Your task to perform on an android device: Is it going to rain this weekend? Image 0: 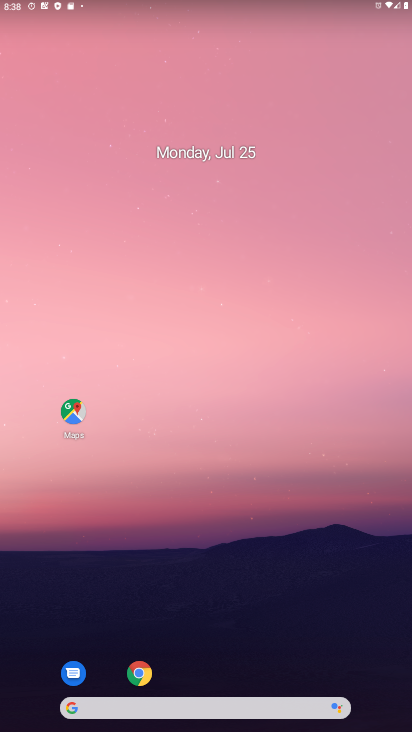
Step 0: drag from (295, 634) to (142, 38)
Your task to perform on an android device: Is it going to rain this weekend? Image 1: 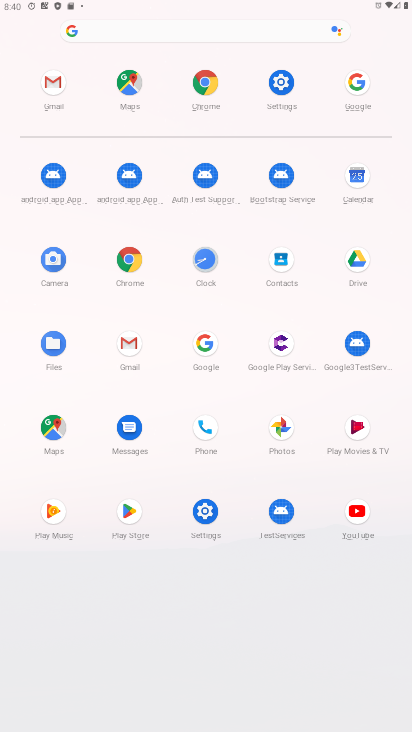
Step 1: click (209, 353)
Your task to perform on an android device: Is it going to rain this weekend? Image 2: 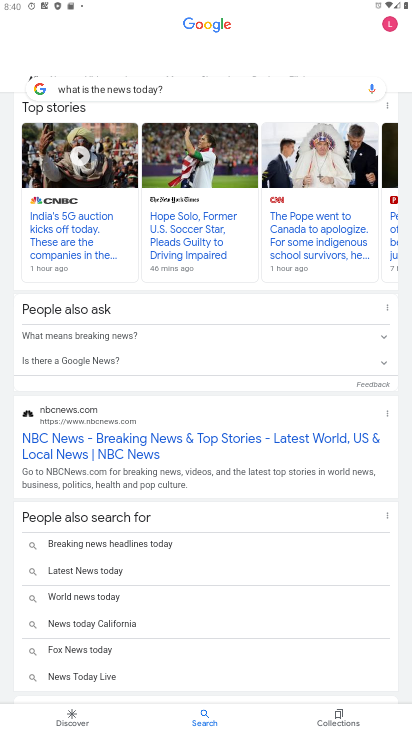
Step 2: press back button
Your task to perform on an android device: Is it going to rain this weekend? Image 3: 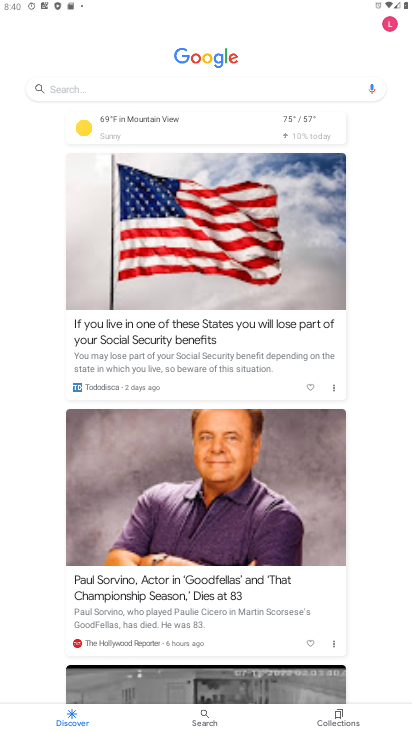
Step 3: click (96, 87)
Your task to perform on an android device: Is it going to rain this weekend? Image 4: 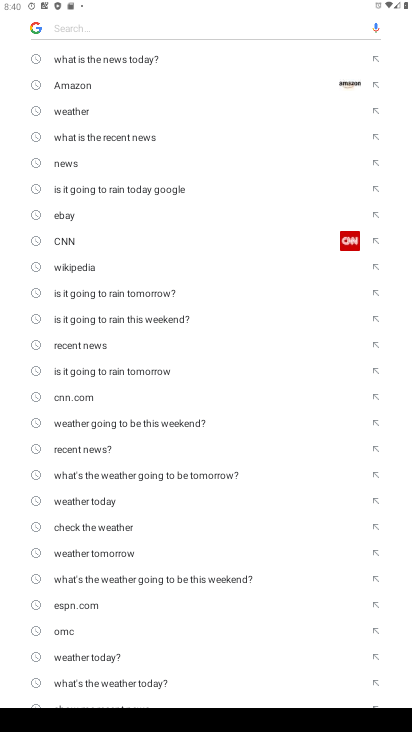
Step 4: type "Is it going to rain this weekend?"
Your task to perform on an android device: Is it going to rain this weekend? Image 5: 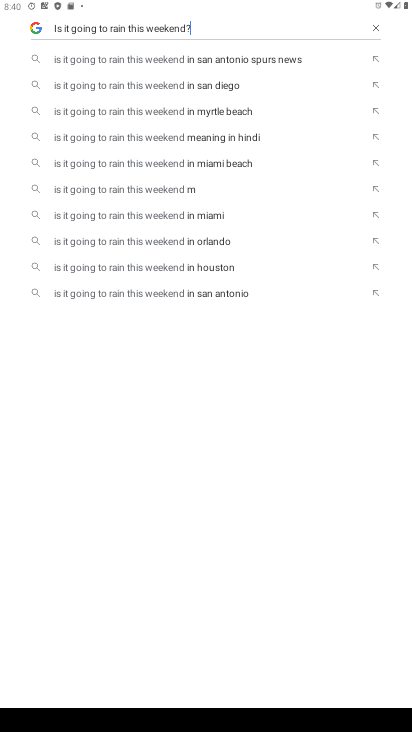
Step 5: task complete